Your task to perform on an android device: remove spam from my inbox in the gmail app Image 0: 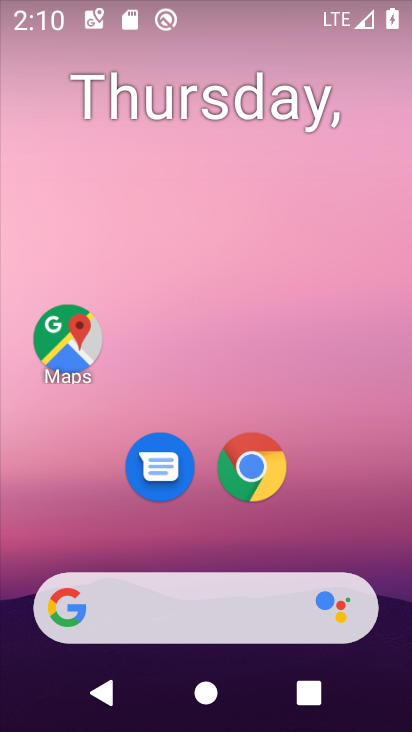
Step 0: drag from (185, 554) to (164, 49)
Your task to perform on an android device: remove spam from my inbox in the gmail app Image 1: 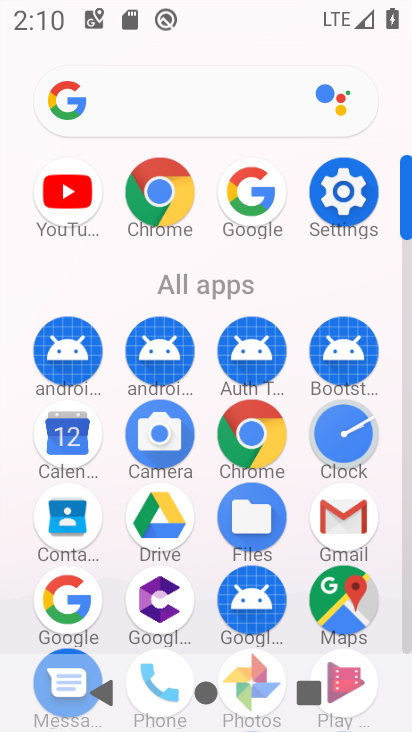
Step 1: click (372, 538)
Your task to perform on an android device: remove spam from my inbox in the gmail app Image 2: 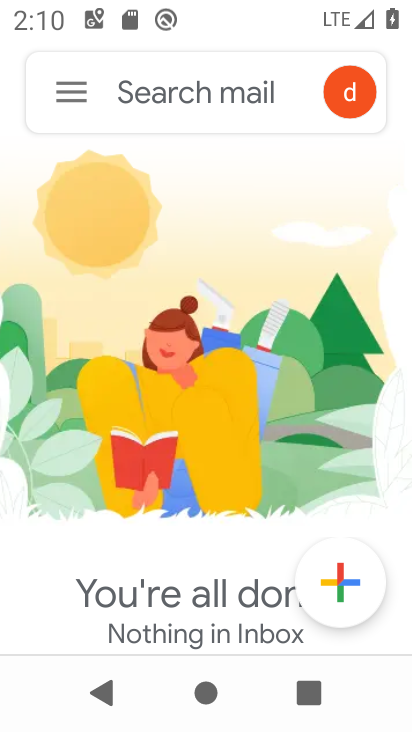
Step 2: click (70, 103)
Your task to perform on an android device: remove spam from my inbox in the gmail app Image 3: 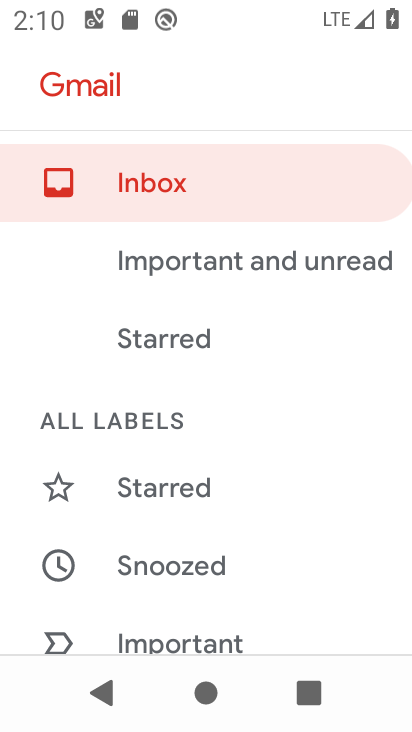
Step 3: drag from (147, 534) to (99, 137)
Your task to perform on an android device: remove spam from my inbox in the gmail app Image 4: 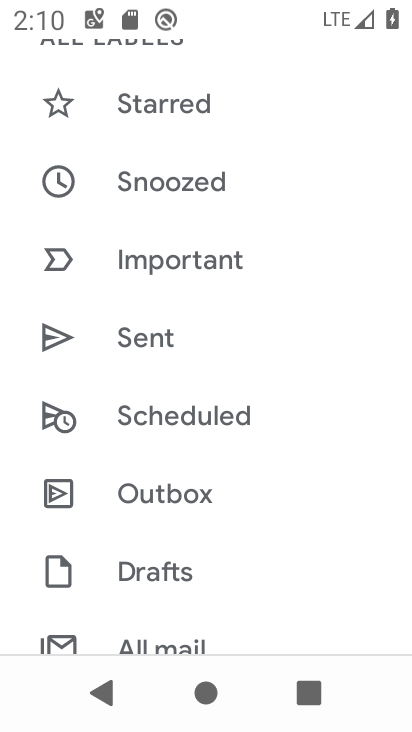
Step 4: drag from (184, 594) to (154, 291)
Your task to perform on an android device: remove spam from my inbox in the gmail app Image 5: 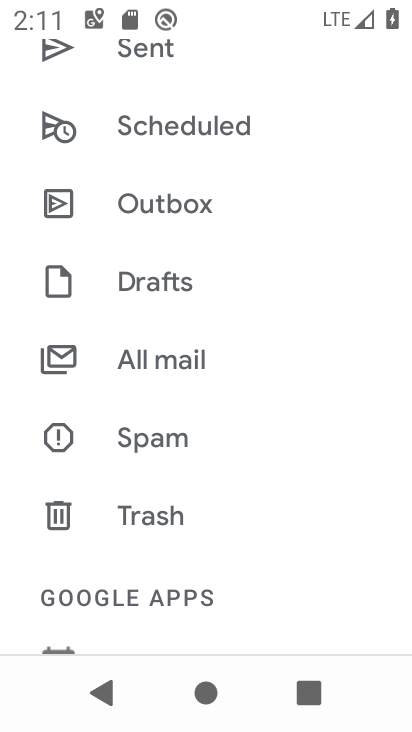
Step 5: click (110, 430)
Your task to perform on an android device: remove spam from my inbox in the gmail app Image 6: 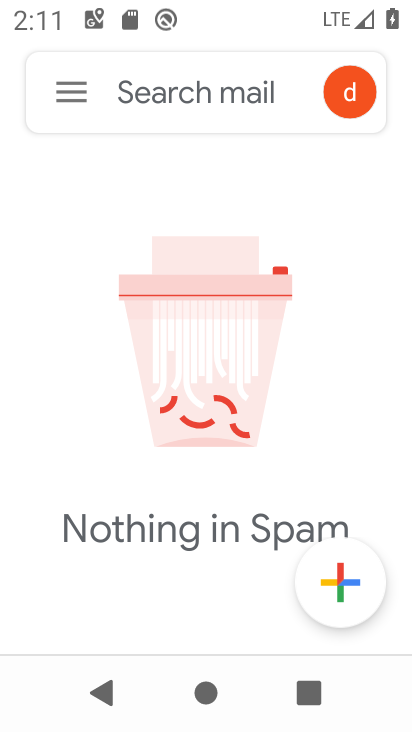
Step 6: task complete